Your task to perform on an android device: Search for seafood restaurants on Google Maps Image 0: 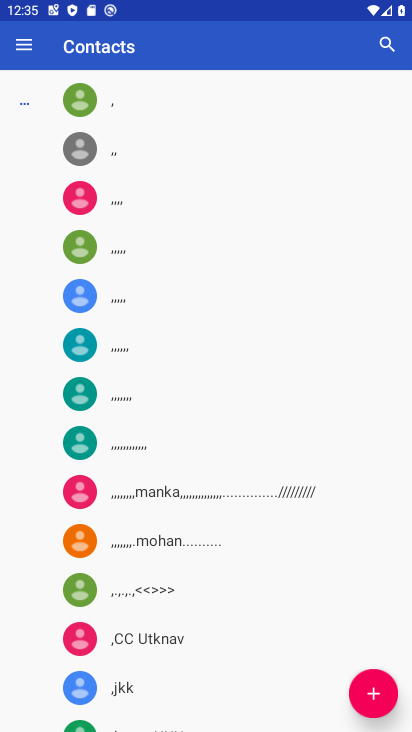
Step 0: press home button
Your task to perform on an android device: Search for seafood restaurants on Google Maps Image 1: 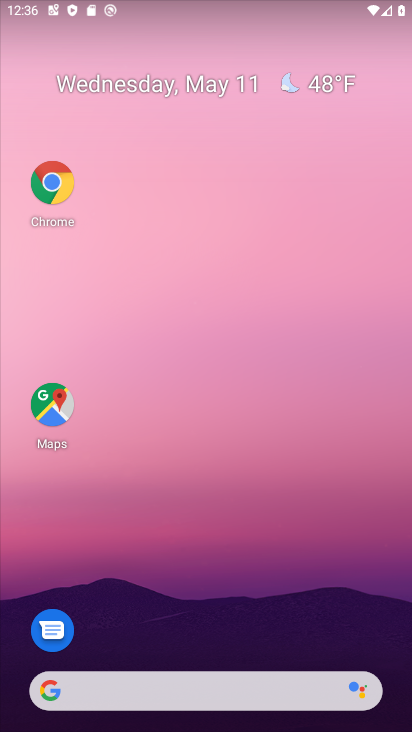
Step 1: click (66, 396)
Your task to perform on an android device: Search for seafood restaurants on Google Maps Image 2: 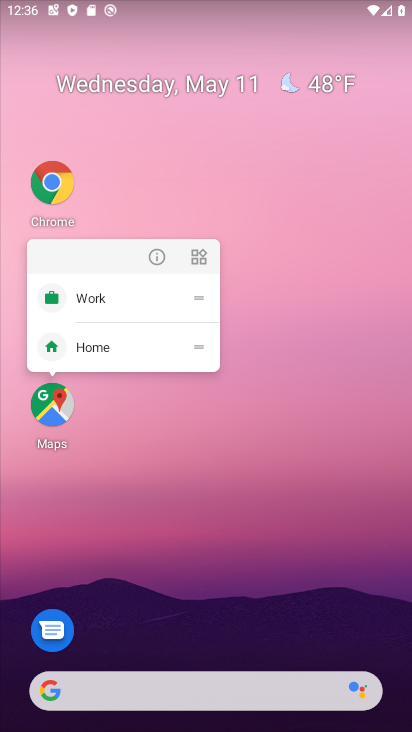
Step 2: click (58, 412)
Your task to perform on an android device: Search for seafood restaurants on Google Maps Image 3: 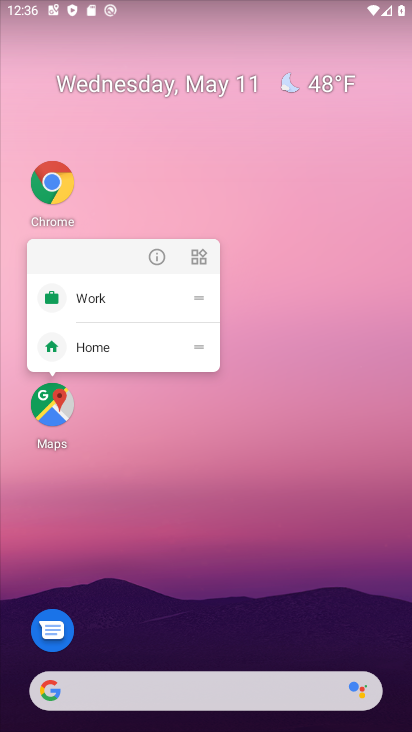
Step 3: click (42, 407)
Your task to perform on an android device: Search for seafood restaurants on Google Maps Image 4: 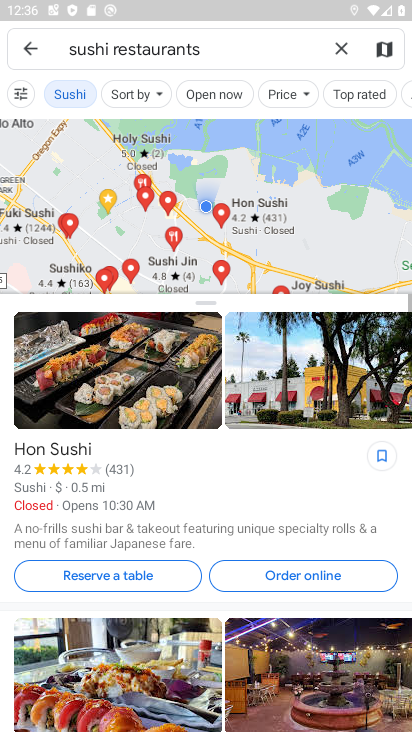
Step 4: click (342, 49)
Your task to perform on an android device: Search for seafood restaurants on Google Maps Image 5: 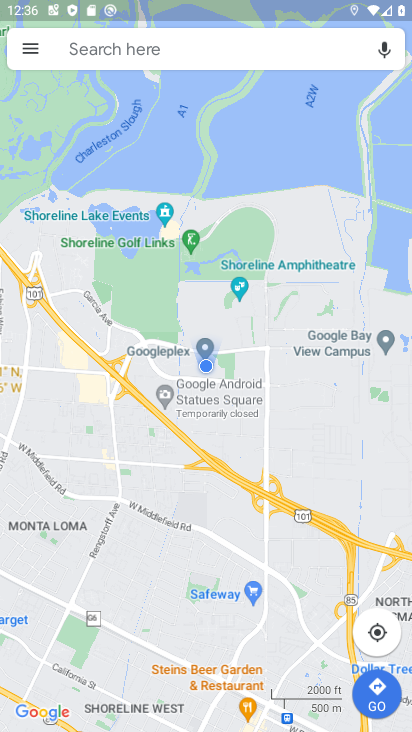
Step 5: click (262, 50)
Your task to perform on an android device: Search for seafood restaurants on Google Maps Image 6: 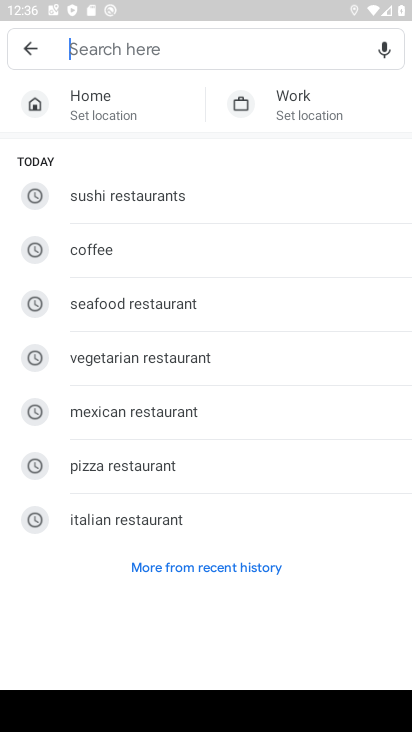
Step 6: click (105, 297)
Your task to perform on an android device: Search for seafood restaurants on Google Maps Image 7: 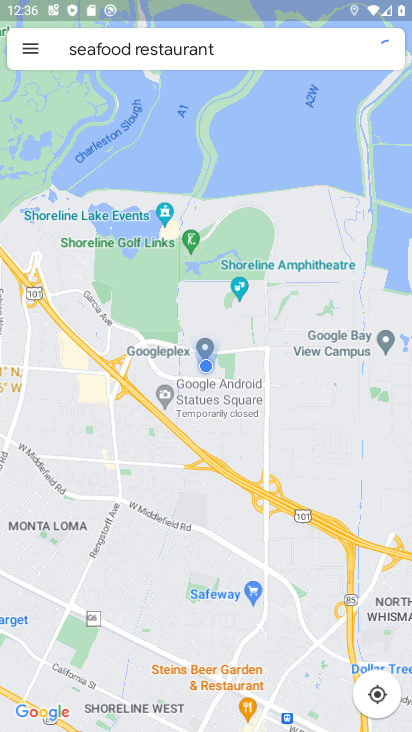
Step 7: task complete